Your task to perform on an android device: open the mobile data screen to see how much data has been used Image 0: 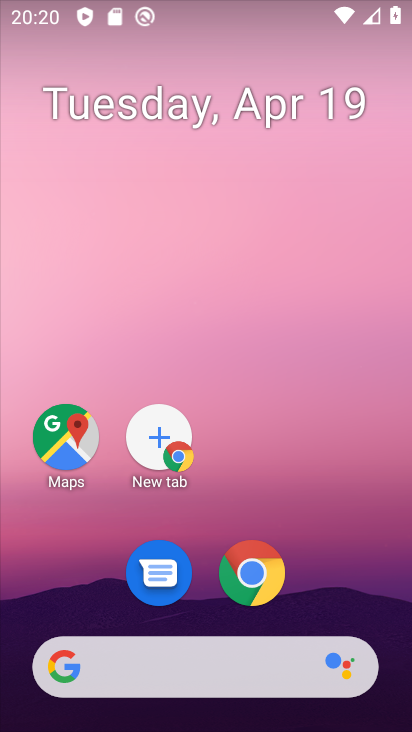
Step 0: drag from (363, 438) to (353, 58)
Your task to perform on an android device: open the mobile data screen to see how much data has been used Image 1: 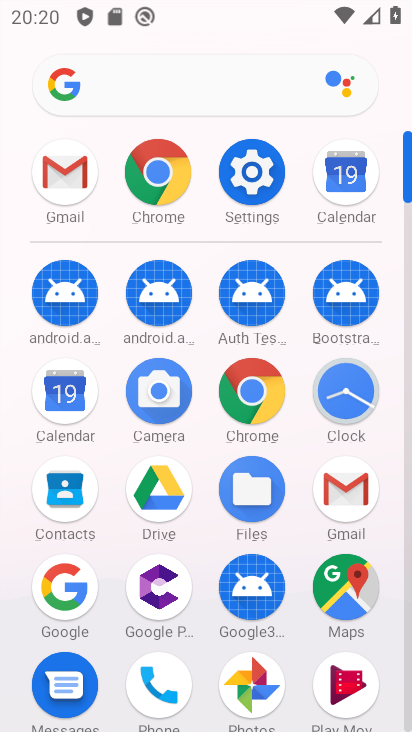
Step 1: click (257, 191)
Your task to perform on an android device: open the mobile data screen to see how much data has been used Image 2: 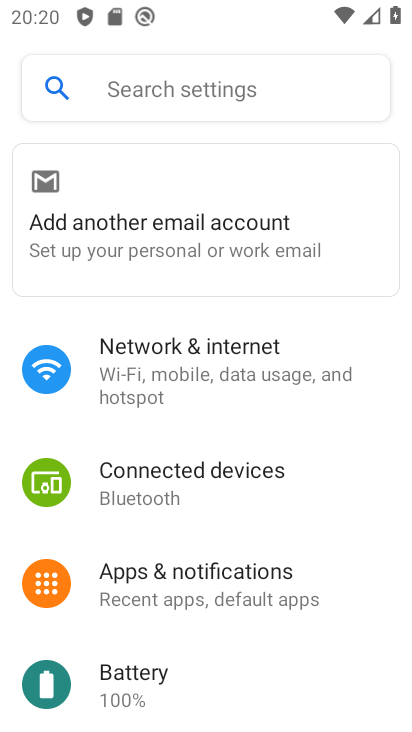
Step 2: click (140, 375)
Your task to perform on an android device: open the mobile data screen to see how much data has been used Image 3: 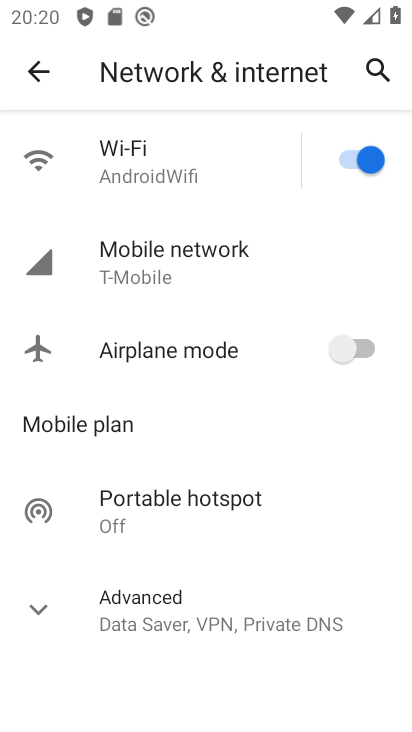
Step 3: click (165, 244)
Your task to perform on an android device: open the mobile data screen to see how much data has been used Image 4: 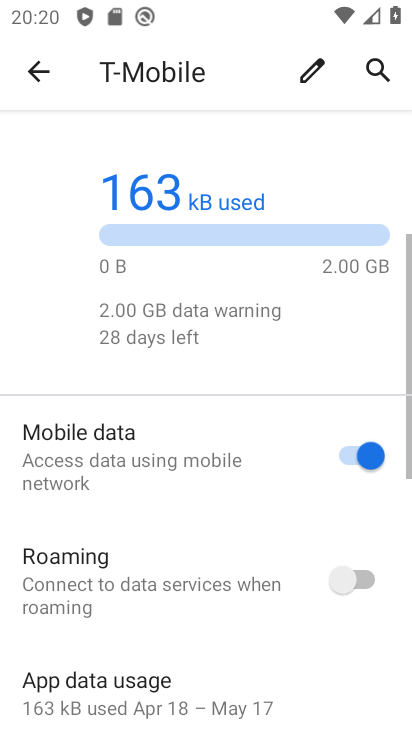
Step 4: click (165, 244)
Your task to perform on an android device: open the mobile data screen to see how much data has been used Image 5: 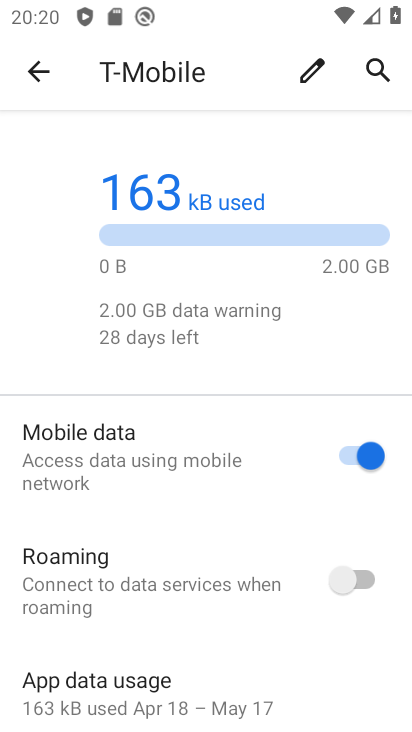
Step 5: task complete